Your task to perform on an android device: Show me recent news Image 0: 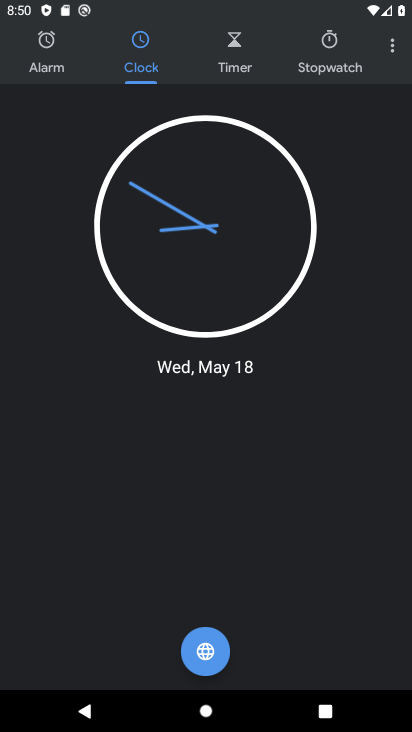
Step 0: press home button
Your task to perform on an android device: Show me recent news Image 1: 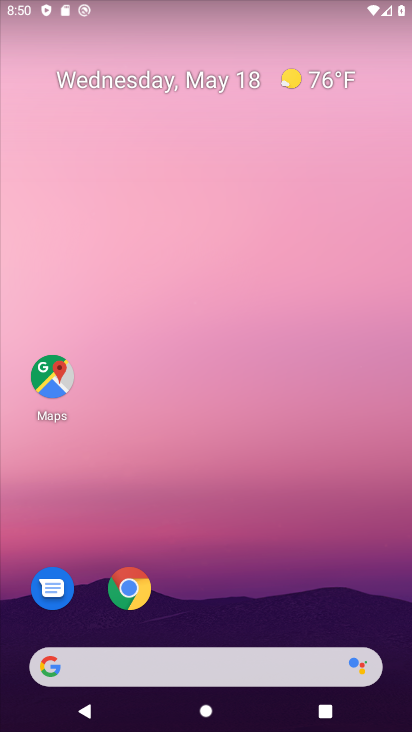
Step 1: click (207, 653)
Your task to perform on an android device: Show me recent news Image 2: 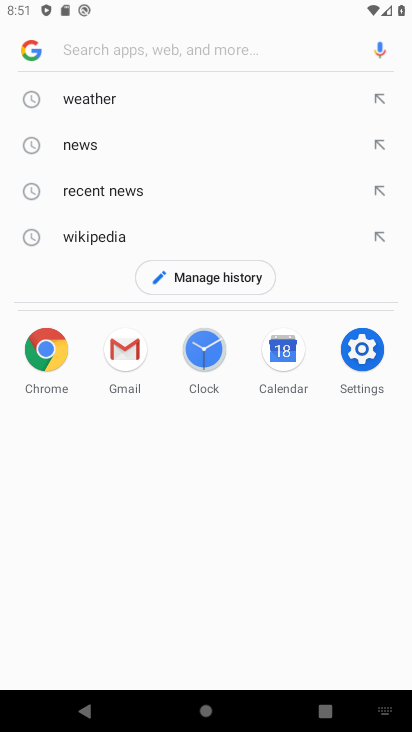
Step 2: click (57, 134)
Your task to perform on an android device: Show me recent news Image 3: 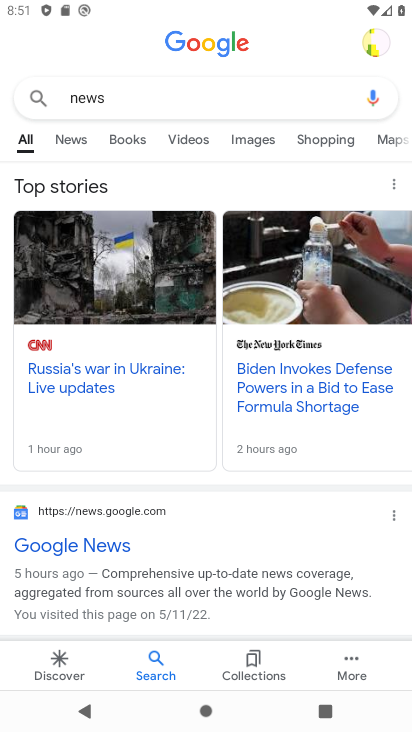
Step 3: task complete